Your task to perform on an android device: Search for Mexican restaurants on Maps Image 0: 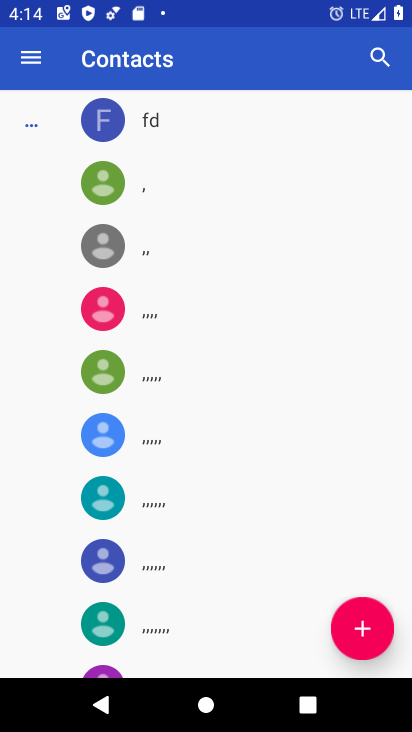
Step 0: press back button
Your task to perform on an android device: Search for Mexican restaurants on Maps Image 1: 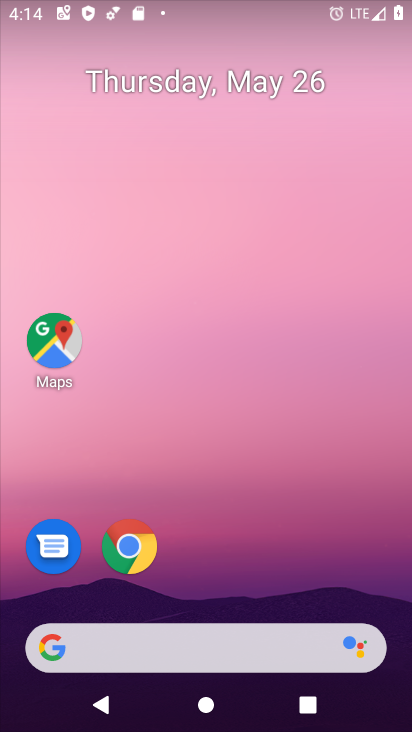
Step 1: click (52, 339)
Your task to perform on an android device: Search for Mexican restaurants on Maps Image 2: 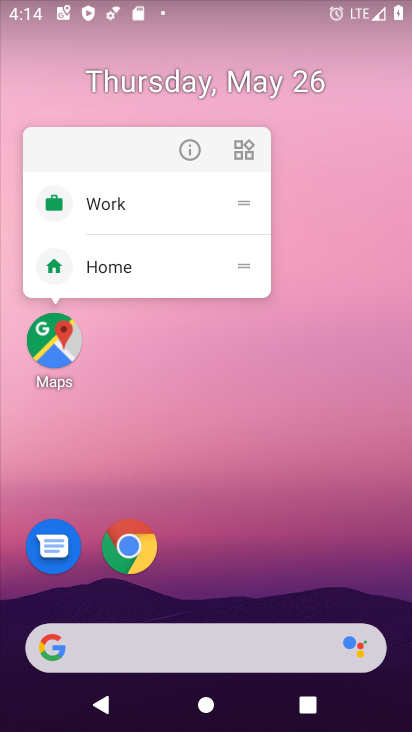
Step 2: click (53, 341)
Your task to perform on an android device: Search for Mexican restaurants on Maps Image 3: 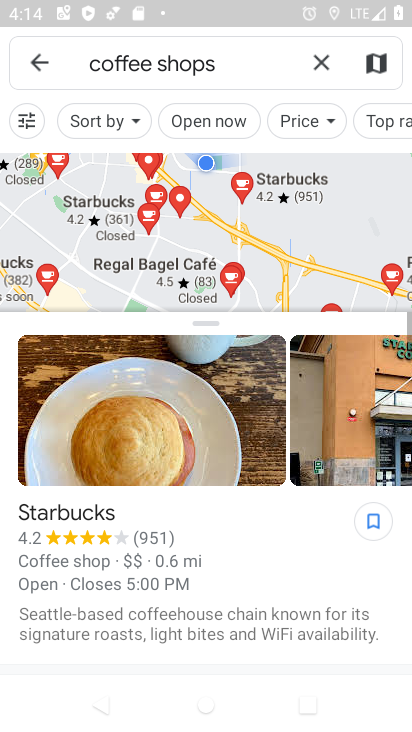
Step 3: click (315, 51)
Your task to perform on an android device: Search for Mexican restaurants on Maps Image 4: 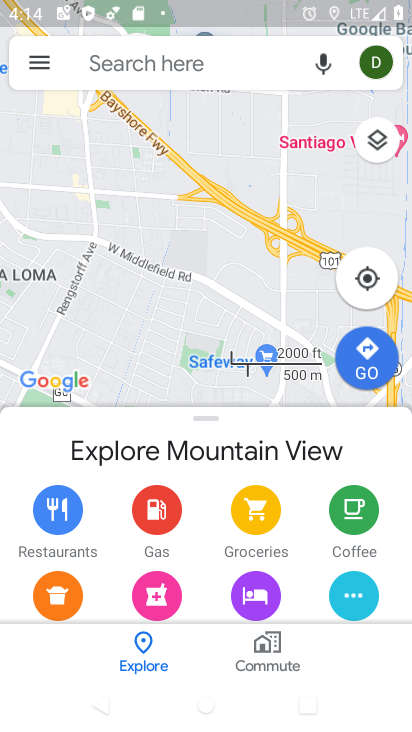
Step 4: click (157, 62)
Your task to perform on an android device: Search for Mexican restaurants on Maps Image 5: 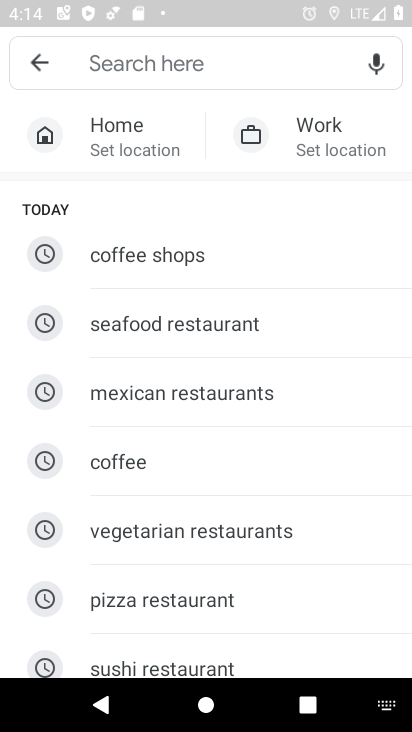
Step 5: click (122, 399)
Your task to perform on an android device: Search for Mexican restaurants on Maps Image 6: 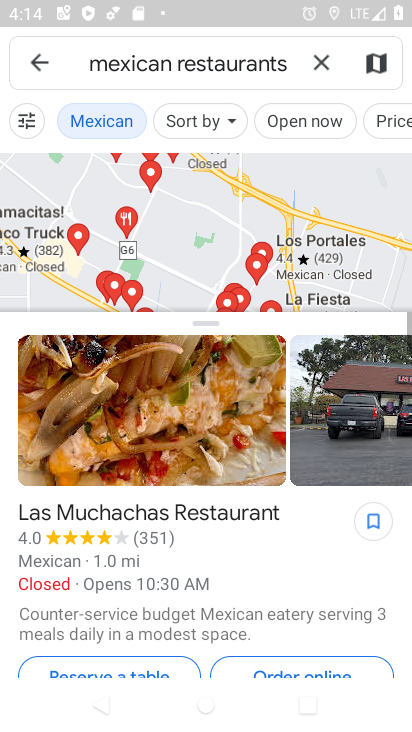
Step 6: task complete